Your task to perform on an android device: Open Chrome and go to settings Image 0: 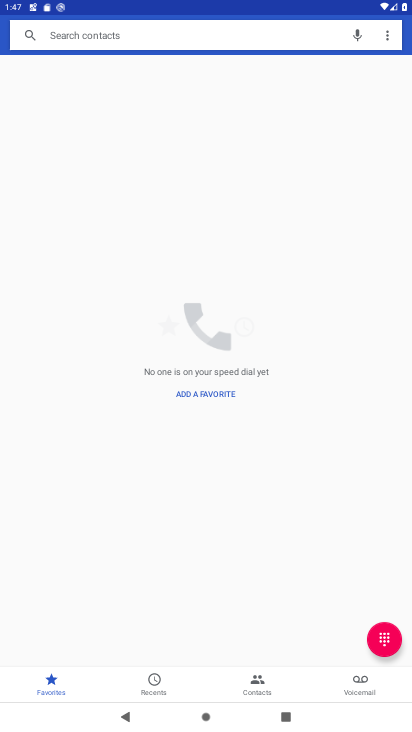
Step 0: press home button
Your task to perform on an android device: Open Chrome and go to settings Image 1: 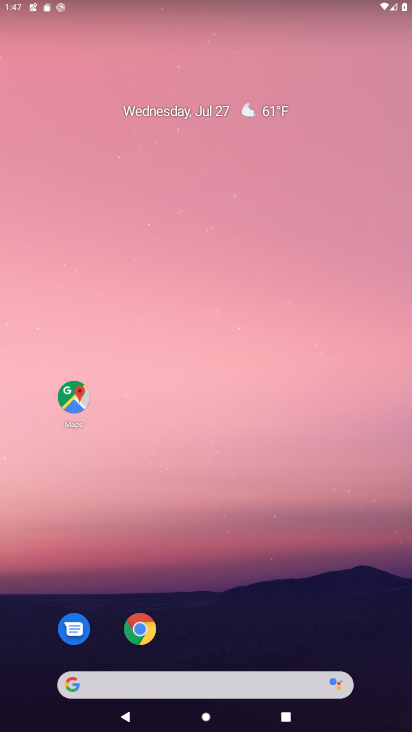
Step 1: click (133, 627)
Your task to perform on an android device: Open Chrome and go to settings Image 2: 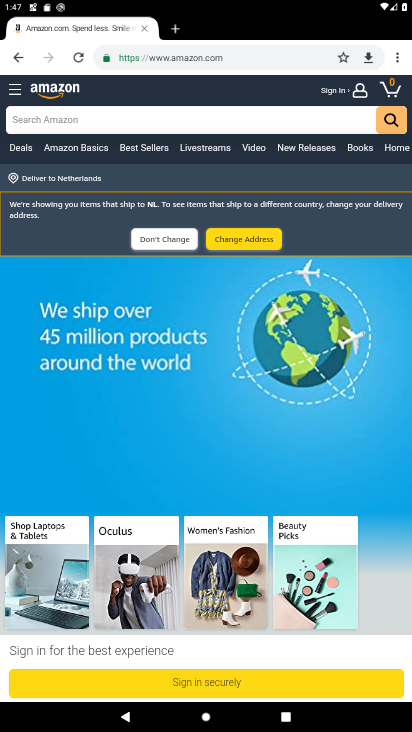
Step 2: task complete